Your task to perform on an android device: add a contact Image 0: 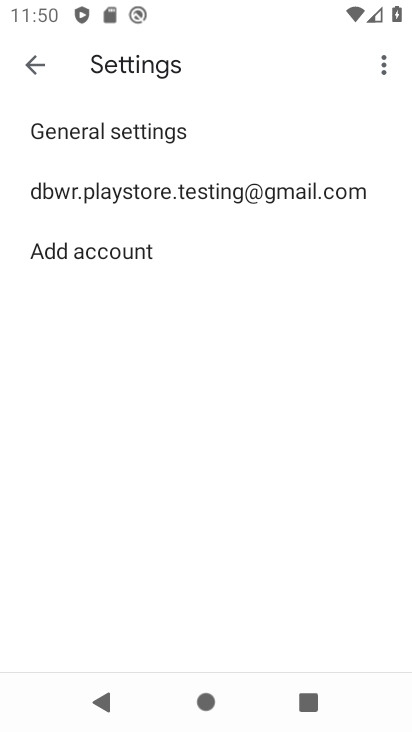
Step 0: press home button
Your task to perform on an android device: add a contact Image 1: 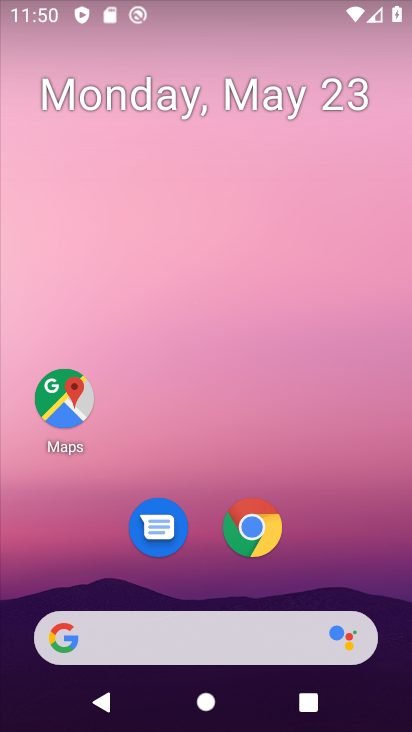
Step 1: drag from (184, 639) to (265, 178)
Your task to perform on an android device: add a contact Image 2: 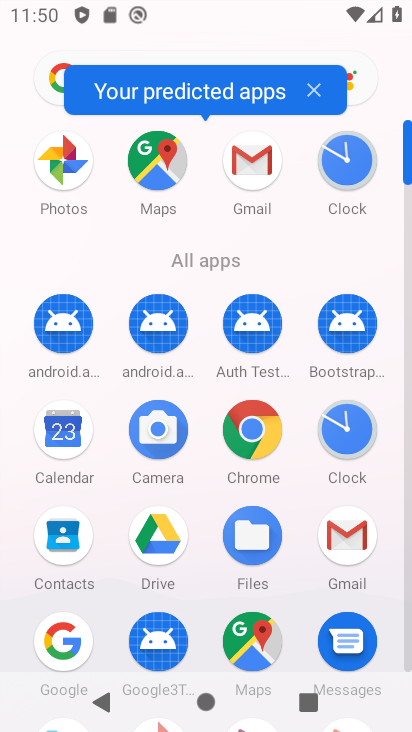
Step 2: click (69, 536)
Your task to perform on an android device: add a contact Image 3: 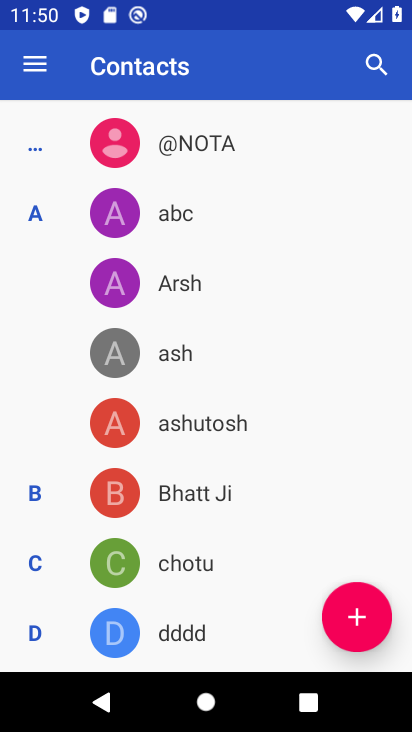
Step 3: click (361, 610)
Your task to perform on an android device: add a contact Image 4: 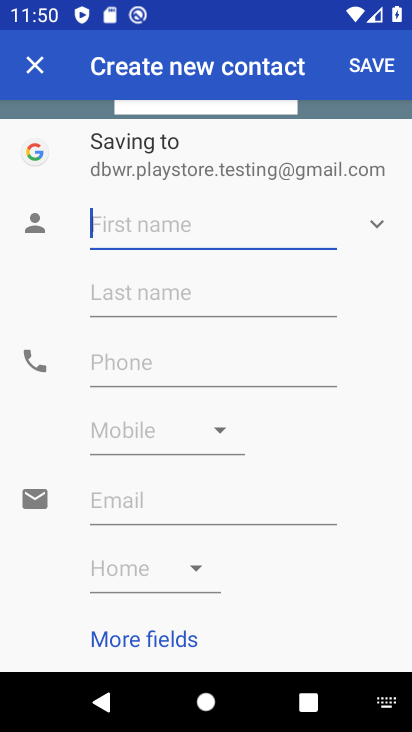
Step 4: click (134, 231)
Your task to perform on an android device: add a contact Image 5: 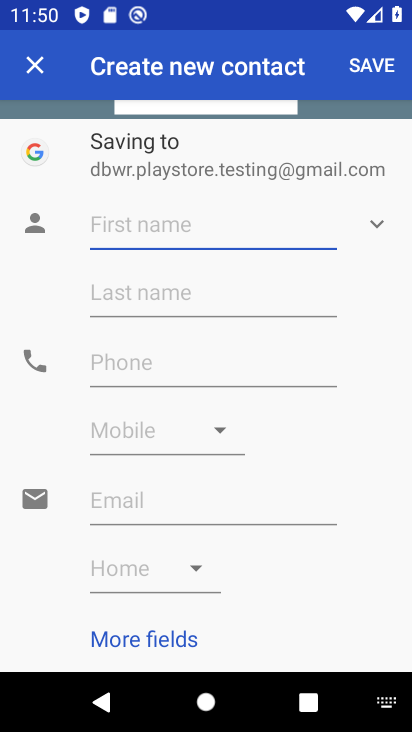
Step 5: type "egdtfyr"
Your task to perform on an android device: add a contact Image 6: 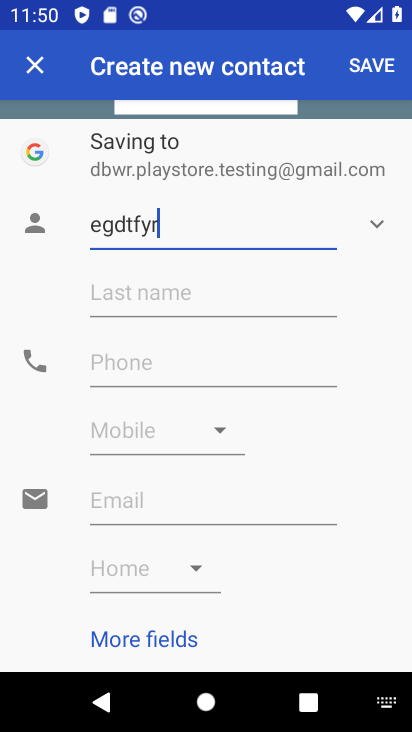
Step 6: click (123, 363)
Your task to perform on an android device: add a contact Image 7: 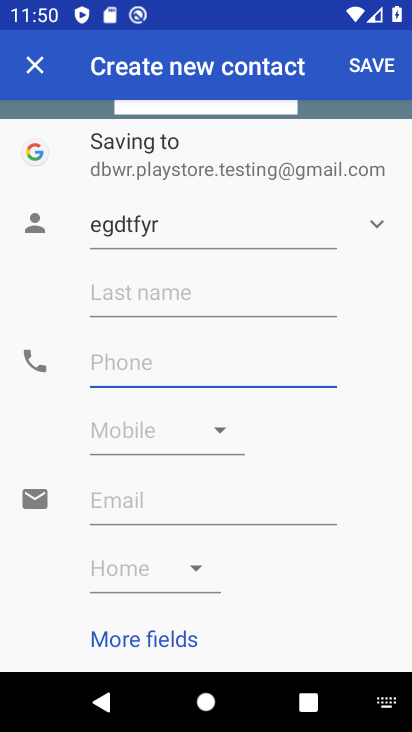
Step 7: type "2735457"
Your task to perform on an android device: add a contact Image 8: 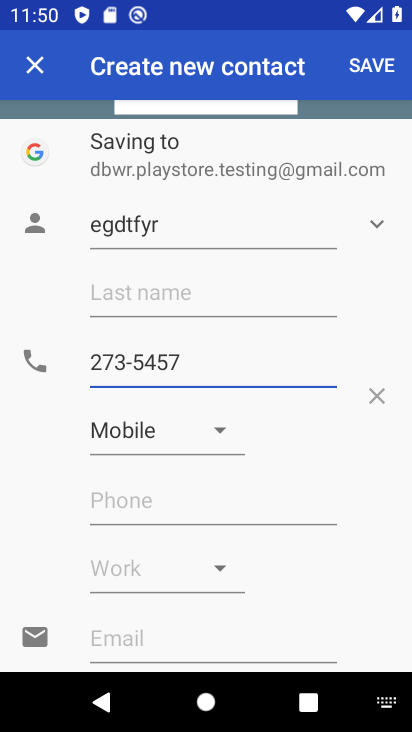
Step 8: click (381, 69)
Your task to perform on an android device: add a contact Image 9: 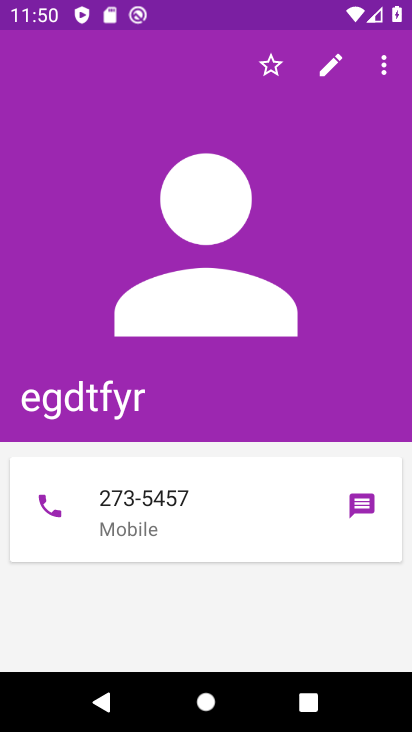
Step 9: task complete